Your task to perform on an android device: Open settings on Google Maps Image 0: 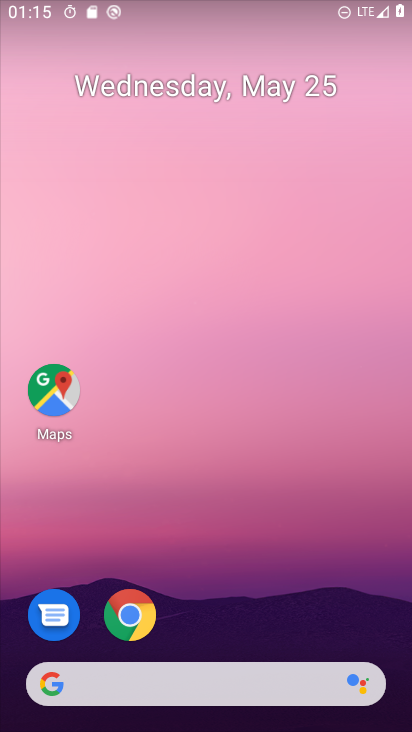
Step 0: drag from (271, 651) to (289, 3)
Your task to perform on an android device: Open settings on Google Maps Image 1: 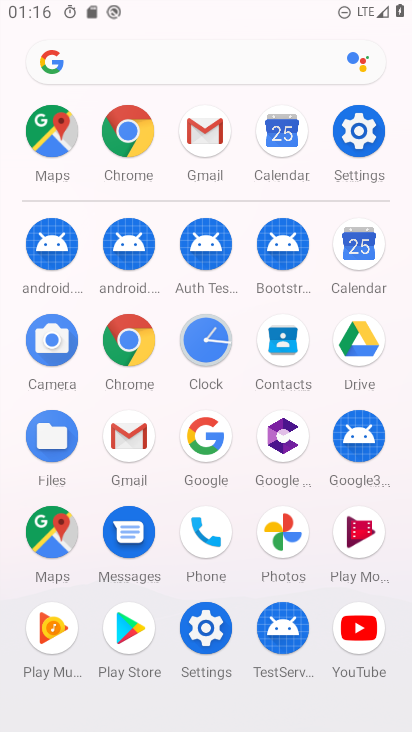
Step 1: click (60, 149)
Your task to perform on an android device: Open settings on Google Maps Image 2: 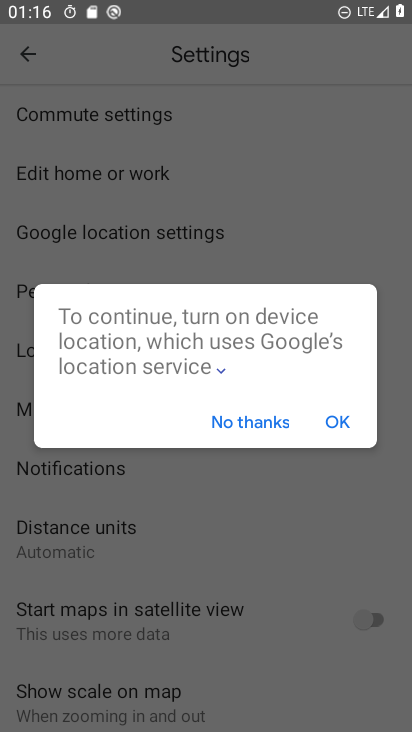
Step 2: click (214, 421)
Your task to perform on an android device: Open settings on Google Maps Image 3: 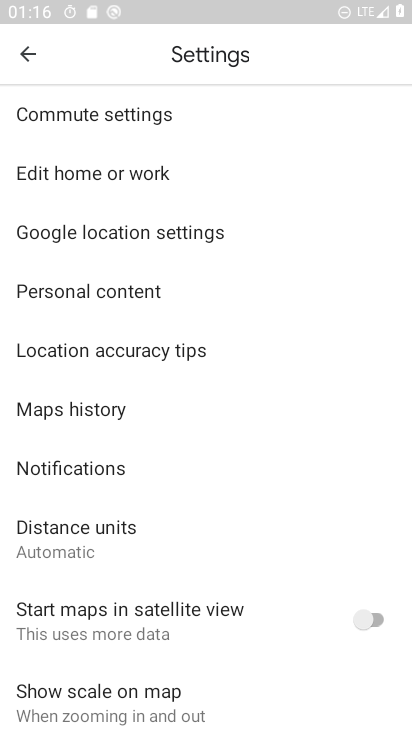
Step 3: click (38, 64)
Your task to perform on an android device: Open settings on Google Maps Image 4: 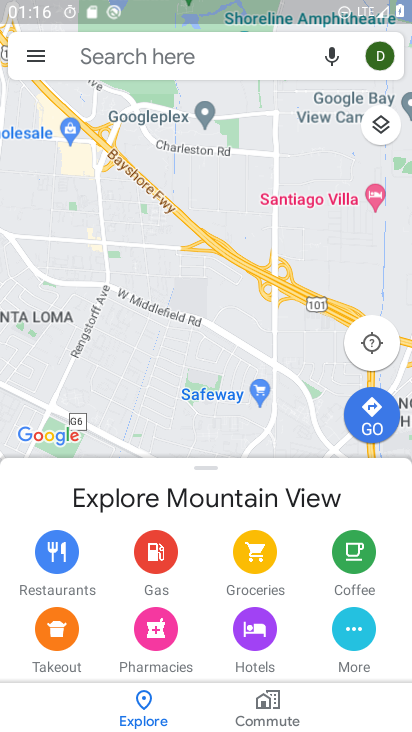
Step 4: click (25, 65)
Your task to perform on an android device: Open settings on Google Maps Image 5: 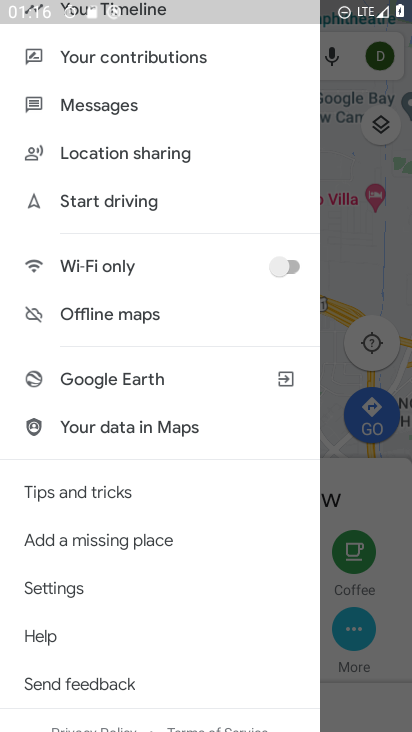
Step 5: click (75, 590)
Your task to perform on an android device: Open settings on Google Maps Image 6: 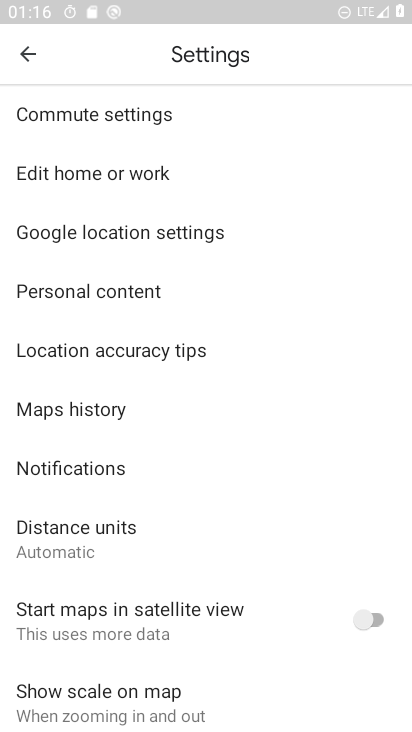
Step 6: task complete